Your task to perform on an android device: Go to accessibility settings Image 0: 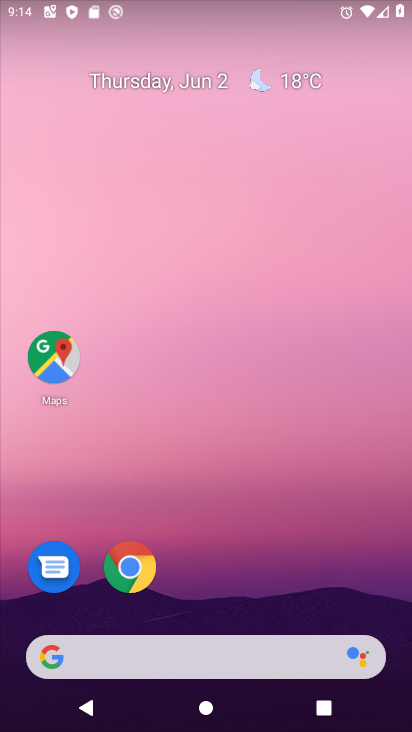
Step 0: drag from (204, 596) to (257, 86)
Your task to perform on an android device: Go to accessibility settings Image 1: 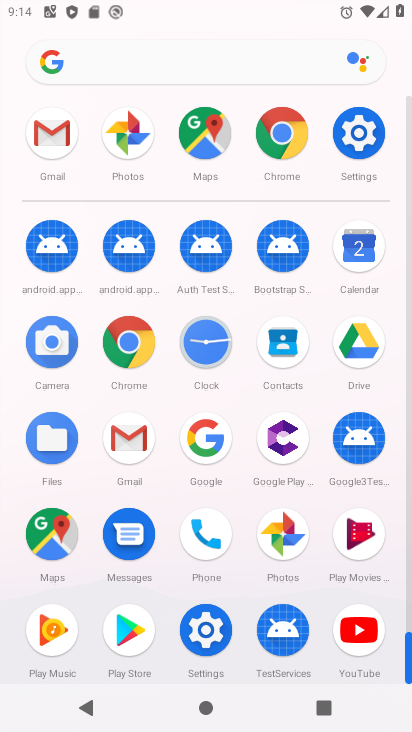
Step 1: click (212, 644)
Your task to perform on an android device: Go to accessibility settings Image 2: 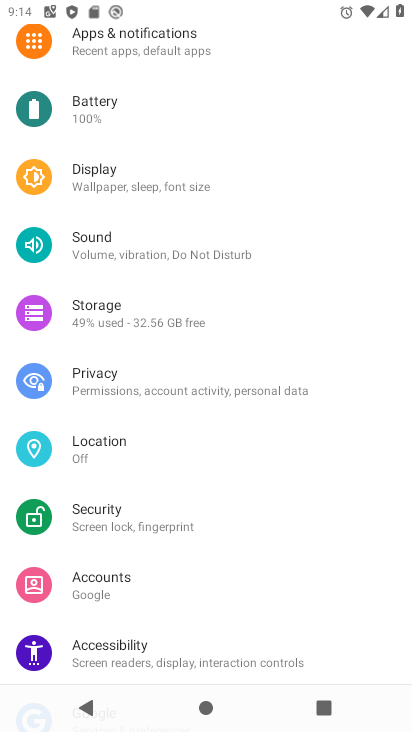
Step 2: click (127, 653)
Your task to perform on an android device: Go to accessibility settings Image 3: 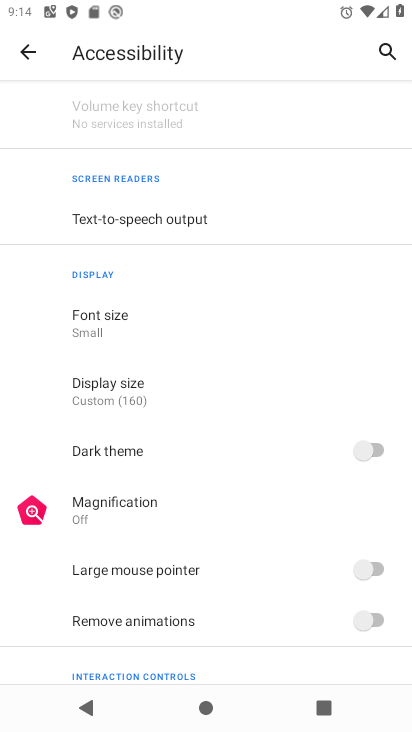
Step 3: task complete